Your task to perform on an android device: uninstall "Booking.com: Hotels and more" Image 0: 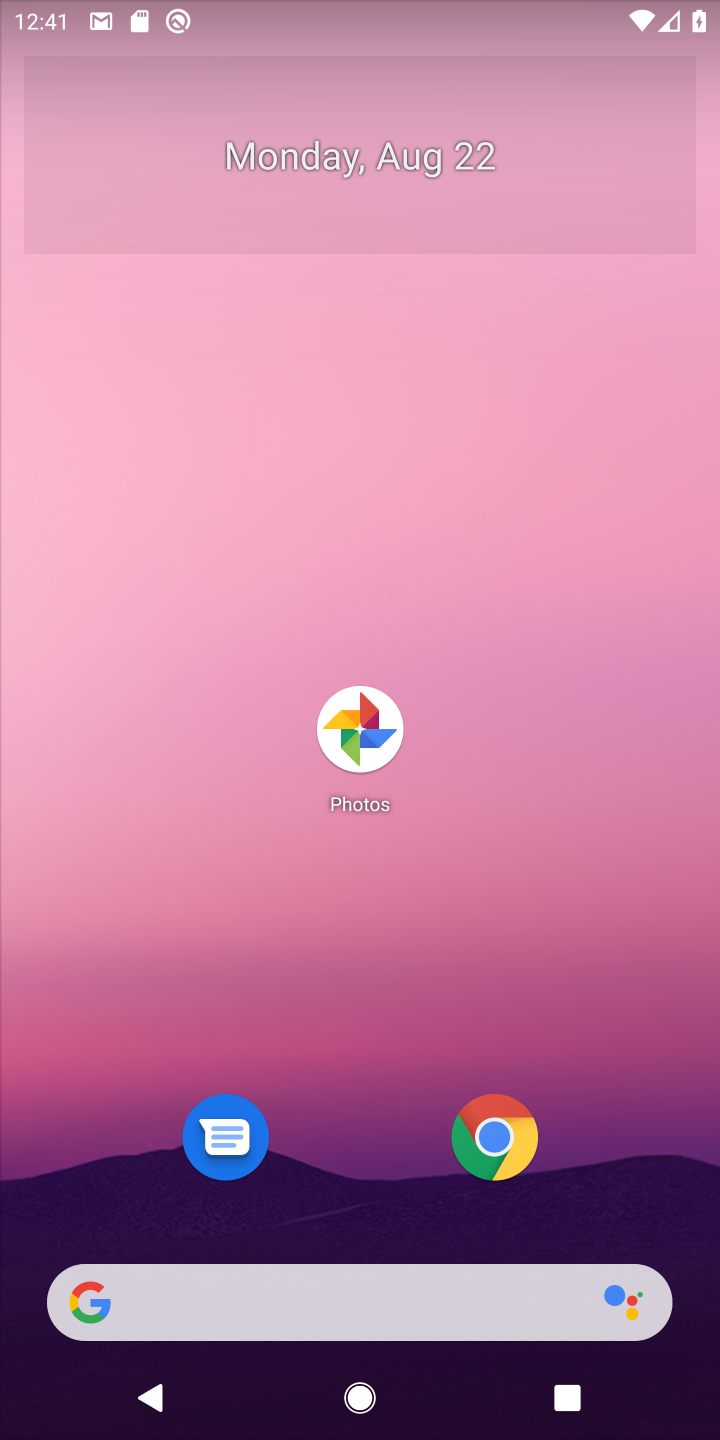
Step 0: drag from (662, 1255) to (645, 148)
Your task to perform on an android device: uninstall "Booking.com: Hotels and more" Image 1: 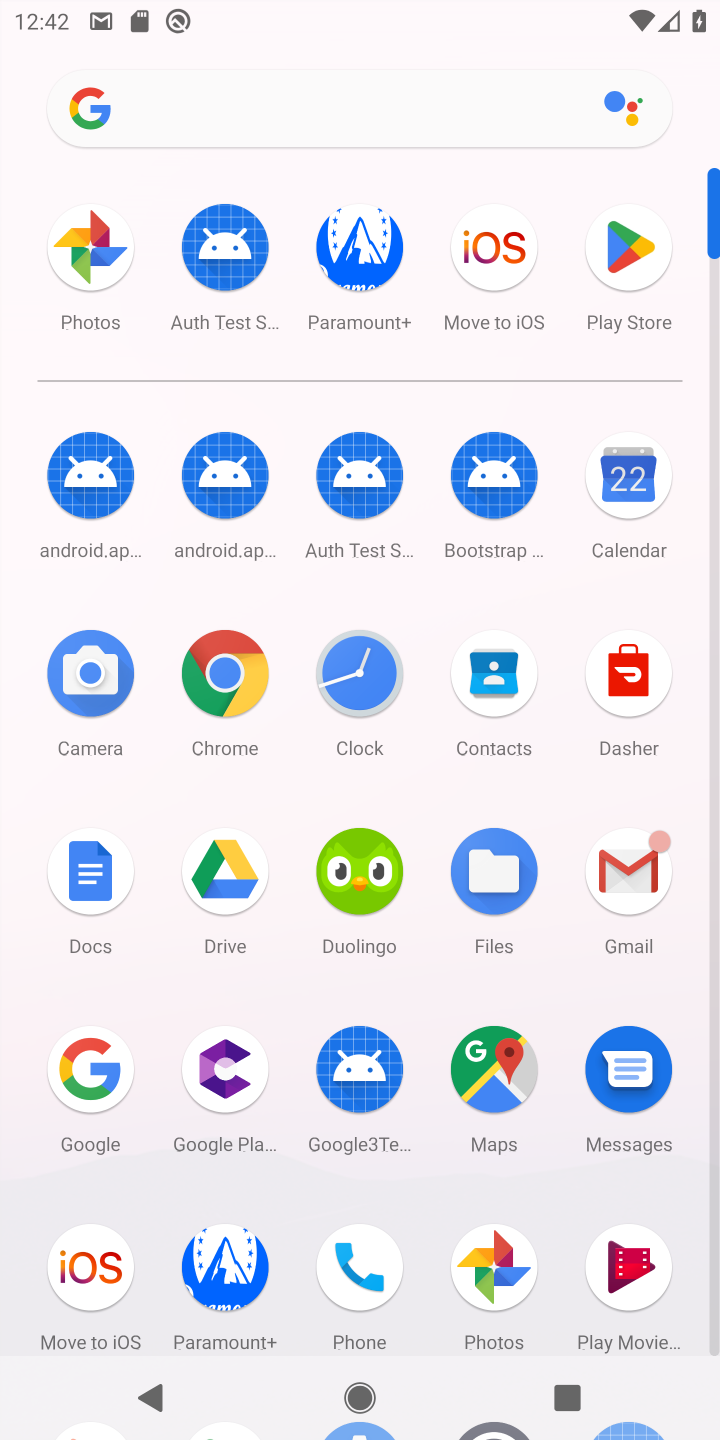
Step 1: drag from (429, 1335) to (412, 521)
Your task to perform on an android device: uninstall "Booking.com: Hotels and more" Image 2: 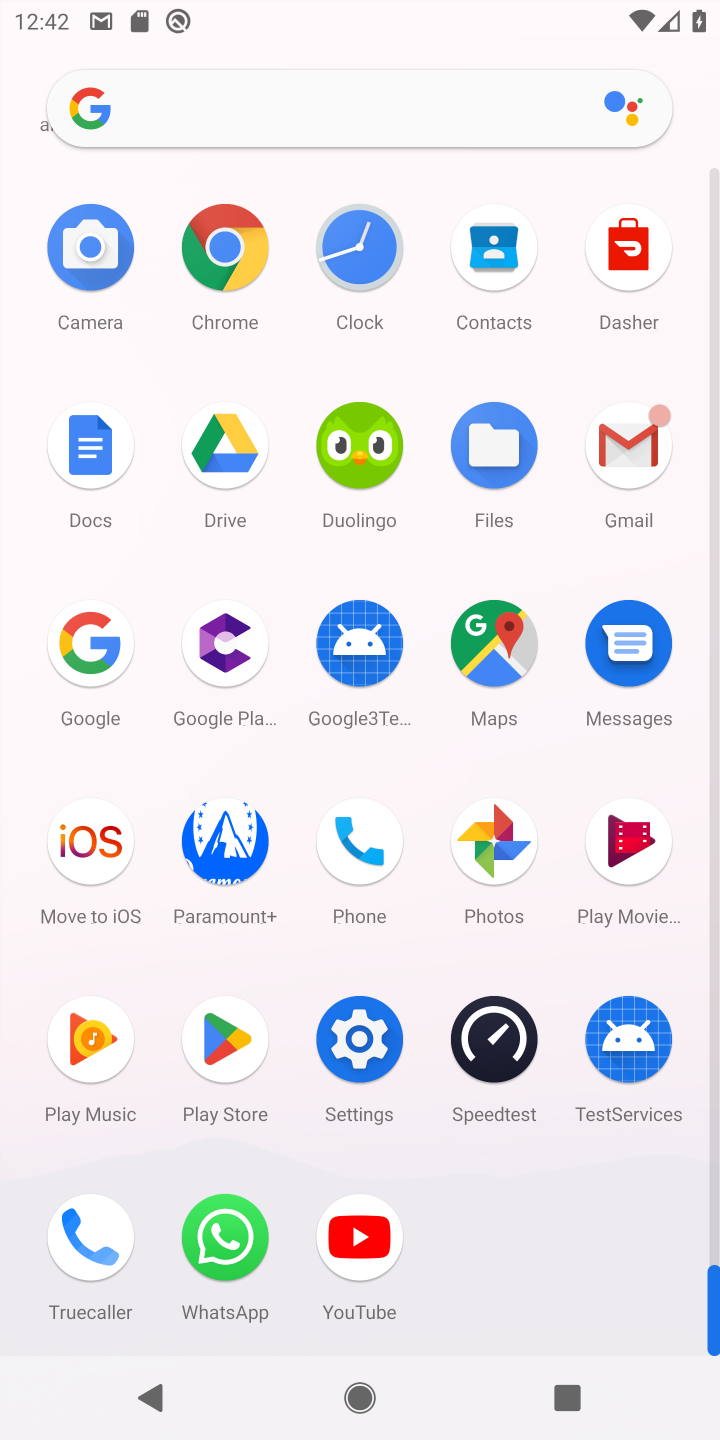
Step 2: click (229, 1044)
Your task to perform on an android device: uninstall "Booking.com: Hotels and more" Image 3: 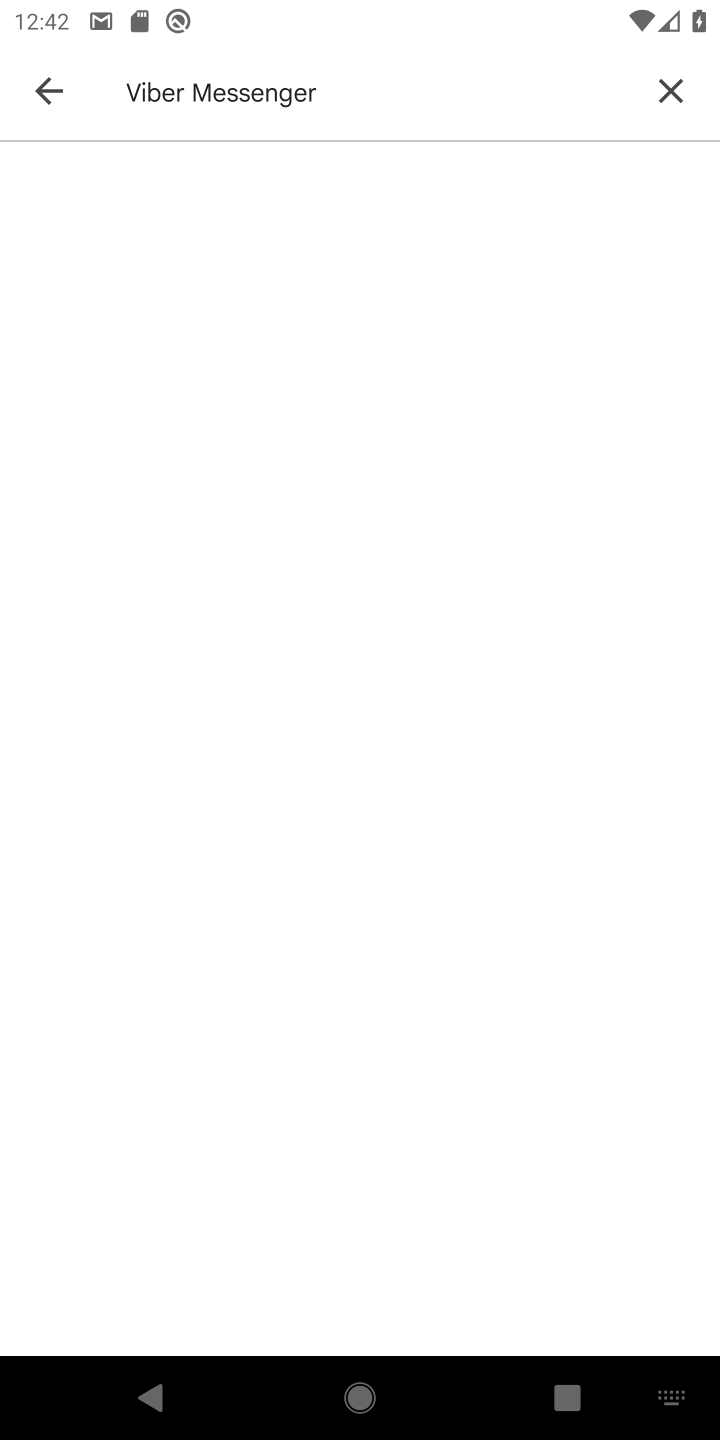
Step 3: click (672, 90)
Your task to perform on an android device: uninstall "Booking.com: Hotels and more" Image 4: 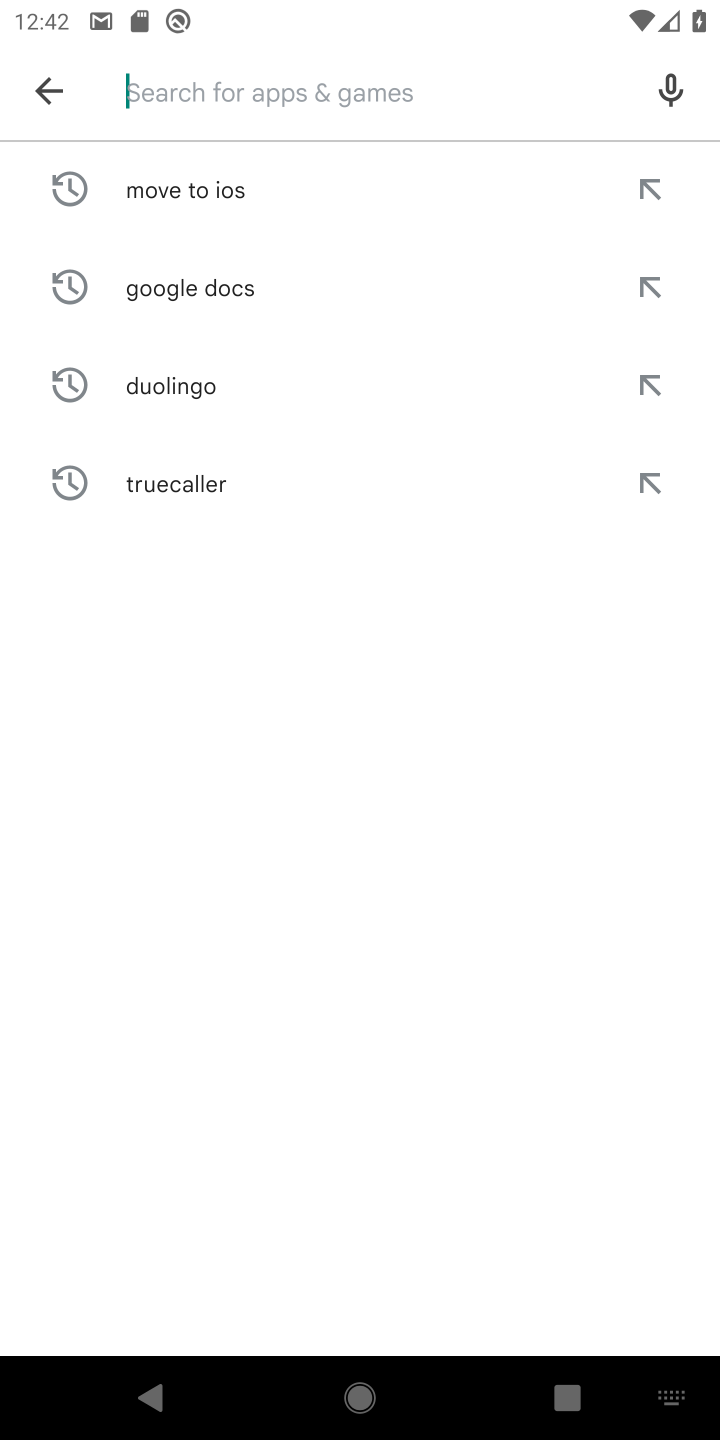
Step 4: type "Booking.com: Hotels and more"
Your task to perform on an android device: uninstall "Booking.com: Hotels and more" Image 5: 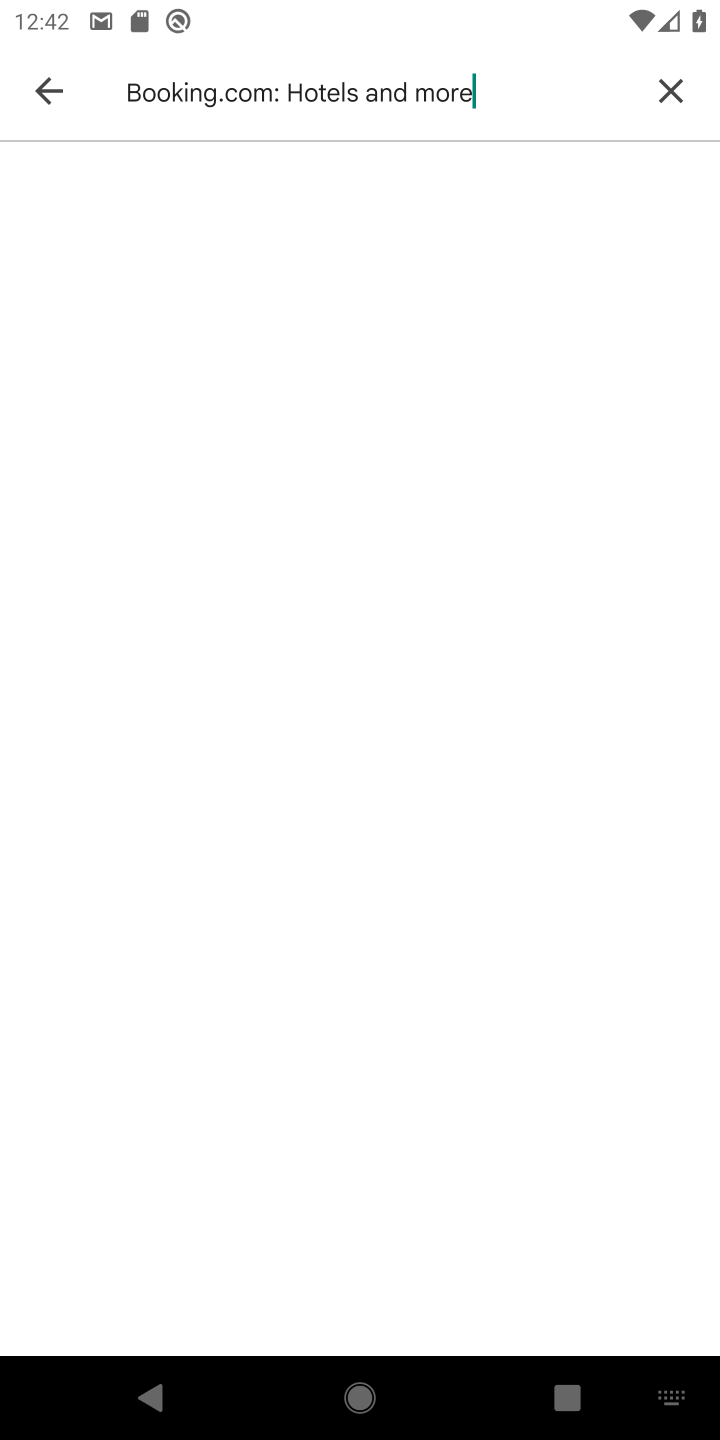
Step 5: task complete